Your task to perform on an android device: Open calendar and show me the third week of next month Image 0: 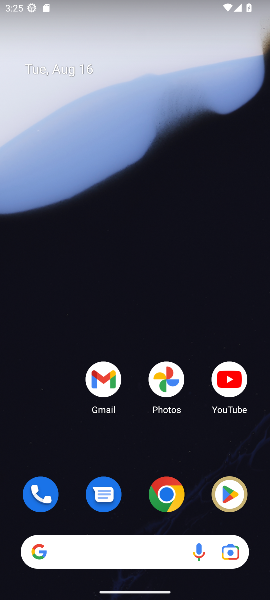
Step 0: drag from (140, 519) to (93, 0)
Your task to perform on an android device: Open calendar and show me the third week of next month Image 1: 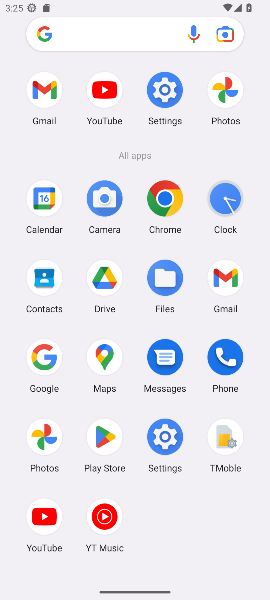
Step 1: click (43, 201)
Your task to perform on an android device: Open calendar and show me the third week of next month Image 2: 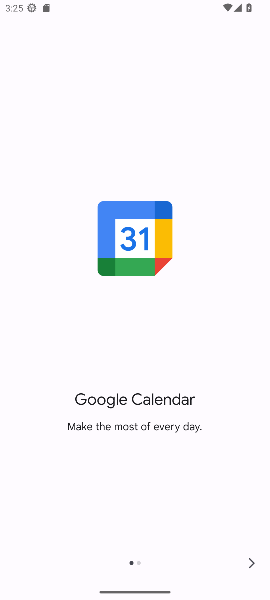
Step 2: click (252, 565)
Your task to perform on an android device: Open calendar and show me the third week of next month Image 3: 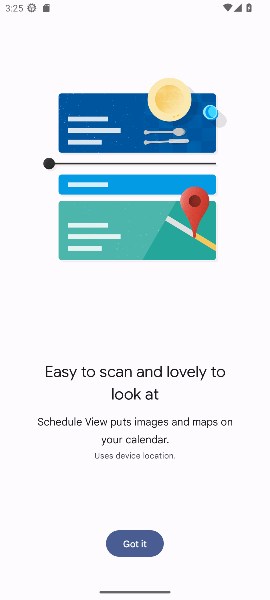
Step 3: click (132, 538)
Your task to perform on an android device: Open calendar and show me the third week of next month Image 4: 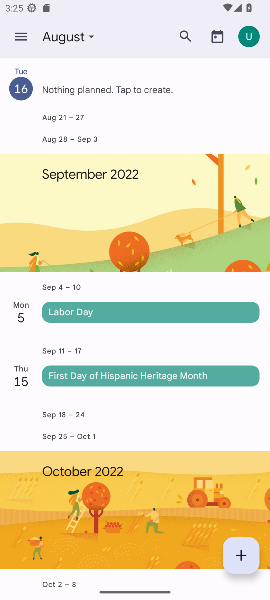
Step 4: click (21, 33)
Your task to perform on an android device: Open calendar and show me the third week of next month Image 5: 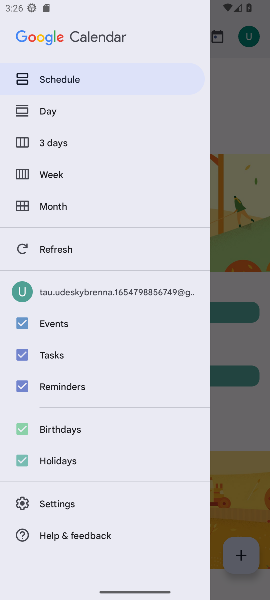
Step 5: click (63, 171)
Your task to perform on an android device: Open calendar and show me the third week of next month Image 6: 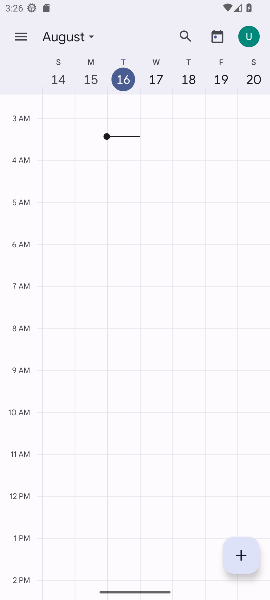
Step 6: task complete